Your task to perform on an android device: all mails in gmail Image 0: 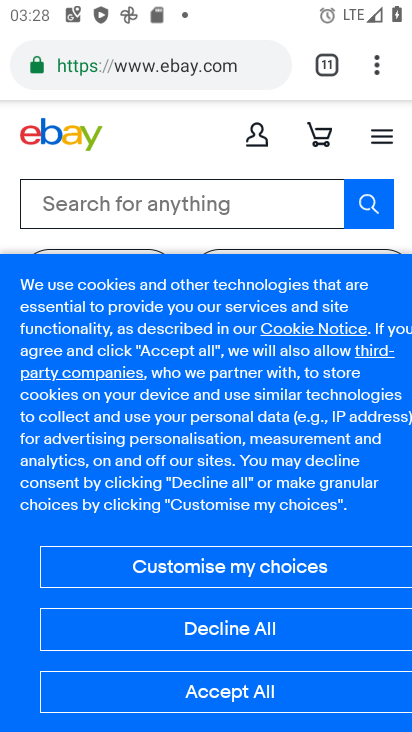
Step 0: press home button
Your task to perform on an android device: all mails in gmail Image 1: 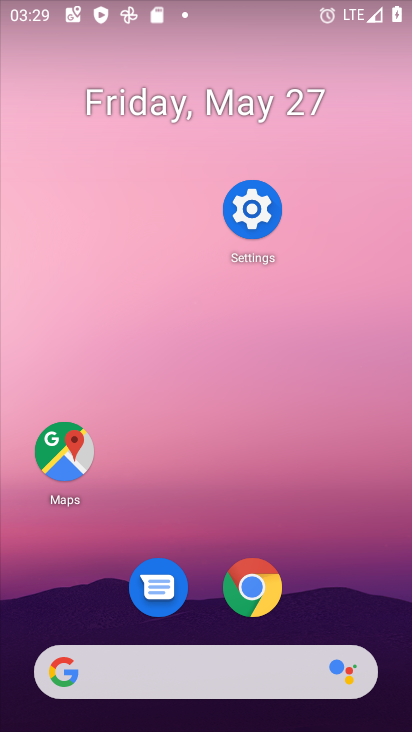
Step 1: drag from (328, 556) to (332, 57)
Your task to perform on an android device: all mails in gmail Image 2: 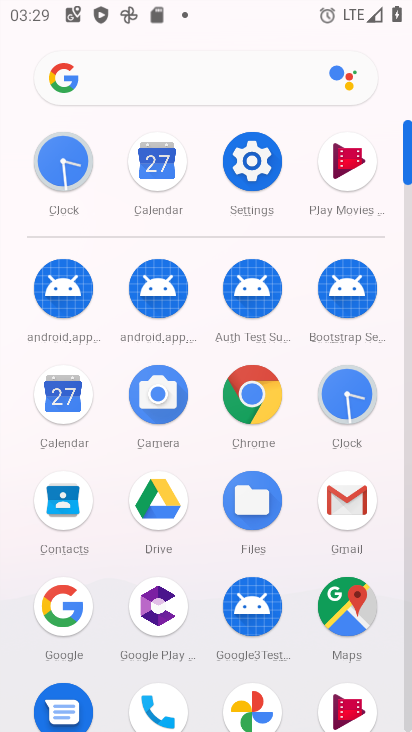
Step 2: click (342, 487)
Your task to perform on an android device: all mails in gmail Image 3: 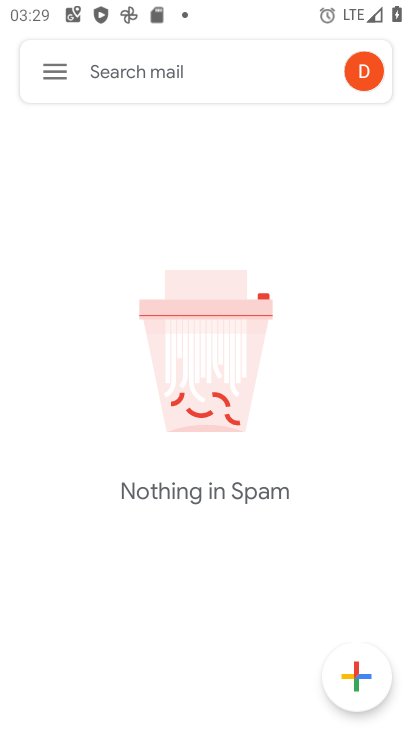
Step 3: click (54, 76)
Your task to perform on an android device: all mails in gmail Image 4: 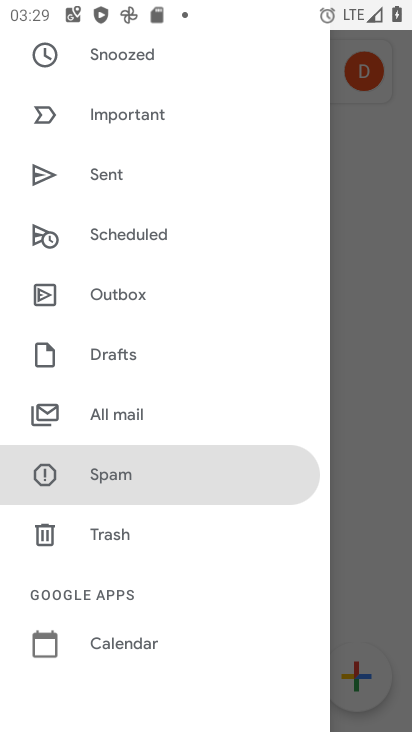
Step 4: drag from (271, 416) to (269, 214)
Your task to perform on an android device: all mails in gmail Image 5: 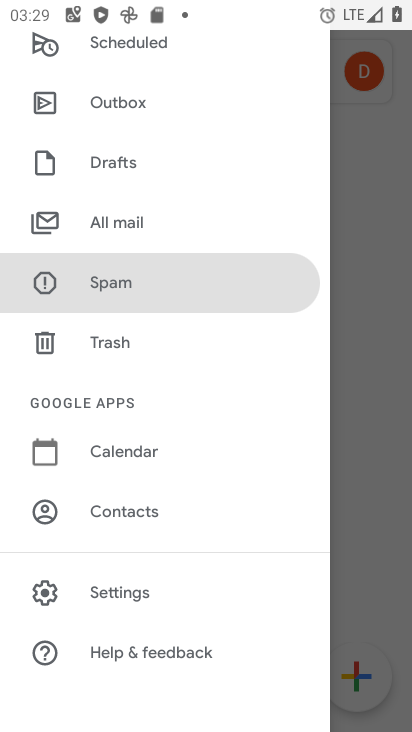
Step 5: click (111, 228)
Your task to perform on an android device: all mails in gmail Image 6: 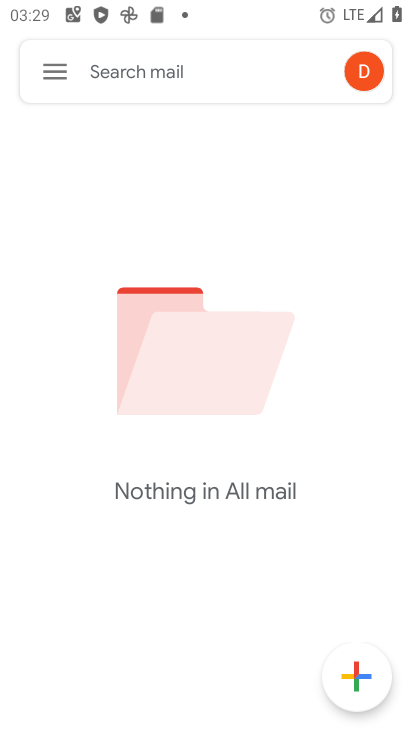
Step 6: task complete